Your task to perform on an android device: make emails show in primary in the gmail app Image 0: 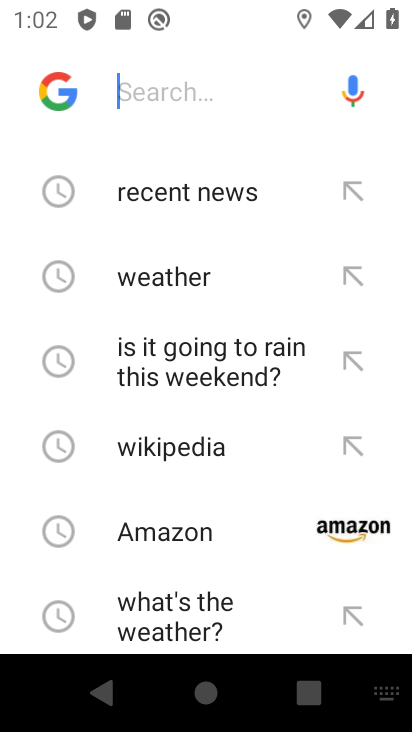
Step 0: press home button
Your task to perform on an android device: make emails show in primary in the gmail app Image 1: 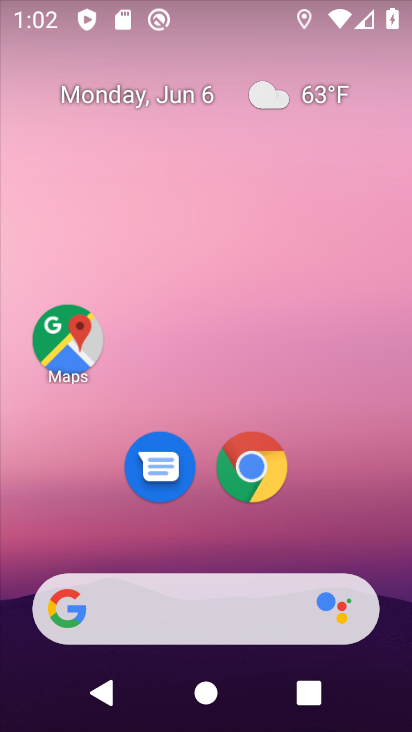
Step 1: drag from (394, 607) to (204, 6)
Your task to perform on an android device: make emails show in primary in the gmail app Image 2: 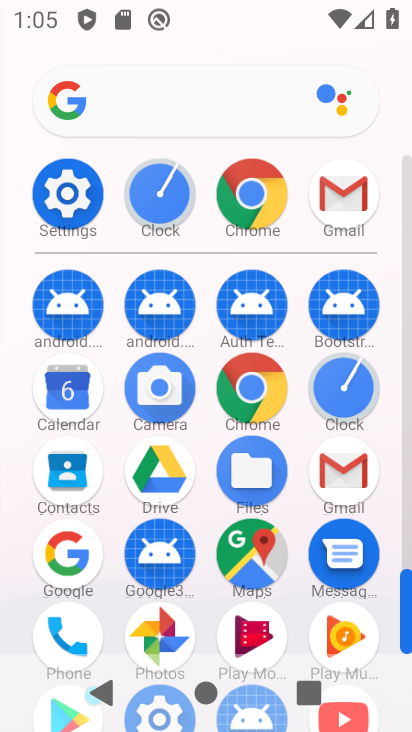
Step 2: click (361, 454)
Your task to perform on an android device: make emails show in primary in the gmail app Image 3: 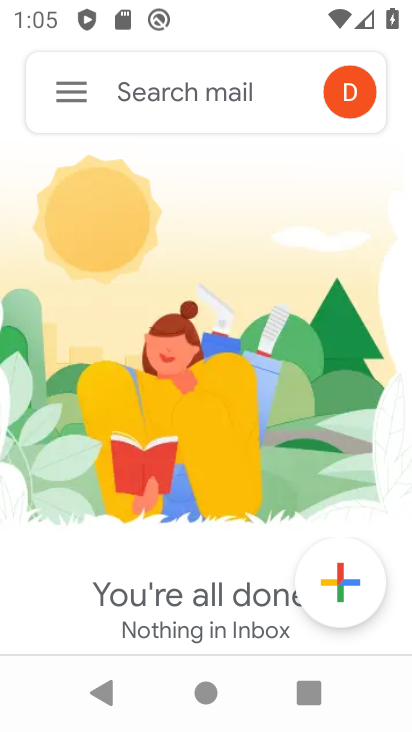
Step 3: task complete